Your task to perform on an android device: change the upload size in google photos Image 0: 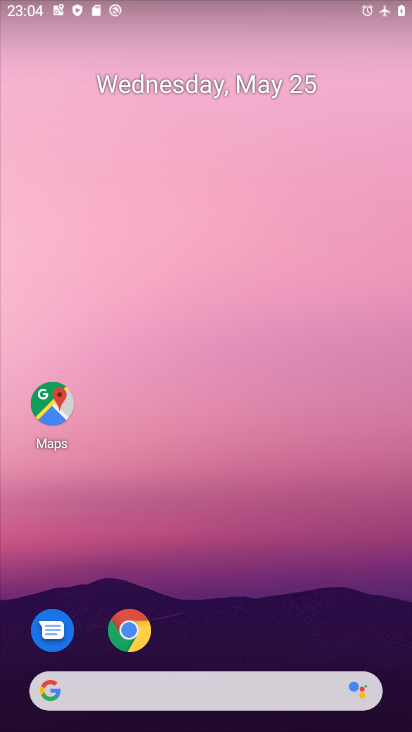
Step 0: drag from (235, 628) to (275, 74)
Your task to perform on an android device: change the upload size in google photos Image 1: 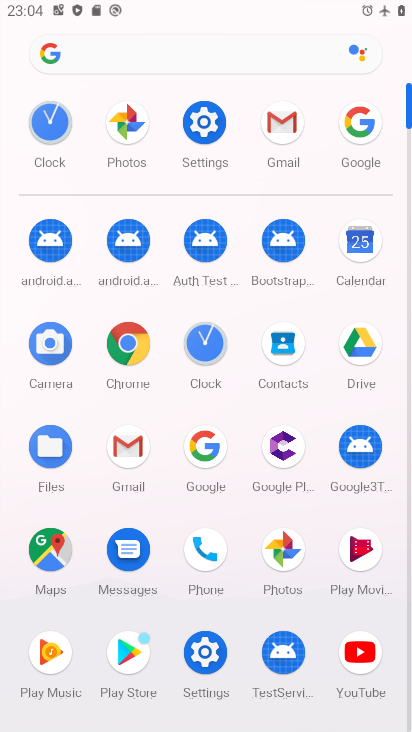
Step 1: click (124, 128)
Your task to perform on an android device: change the upload size in google photos Image 2: 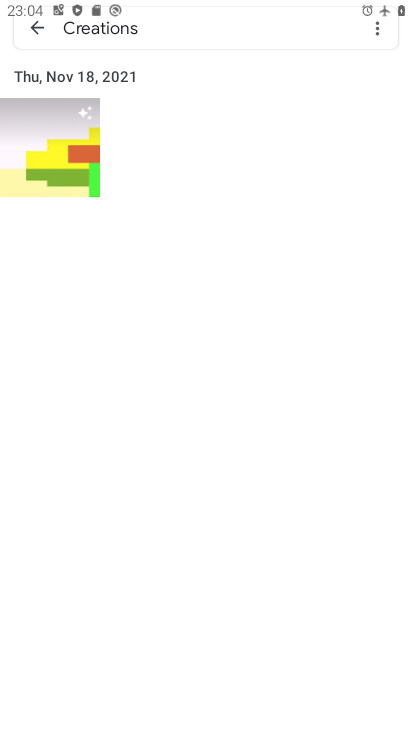
Step 2: click (37, 32)
Your task to perform on an android device: change the upload size in google photos Image 3: 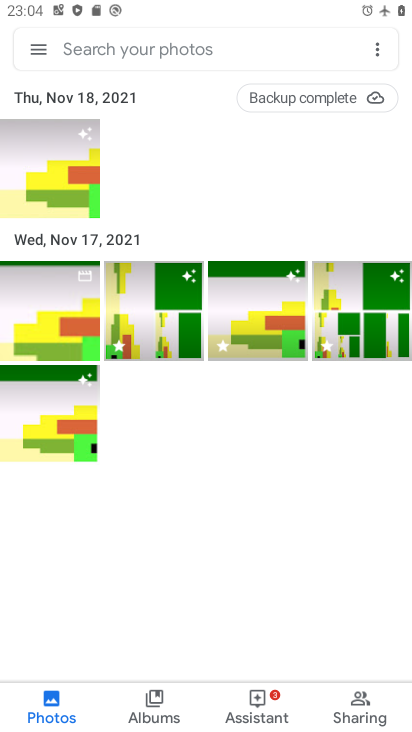
Step 3: click (42, 49)
Your task to perform on an android device: change the upload size in google photos Image 4: 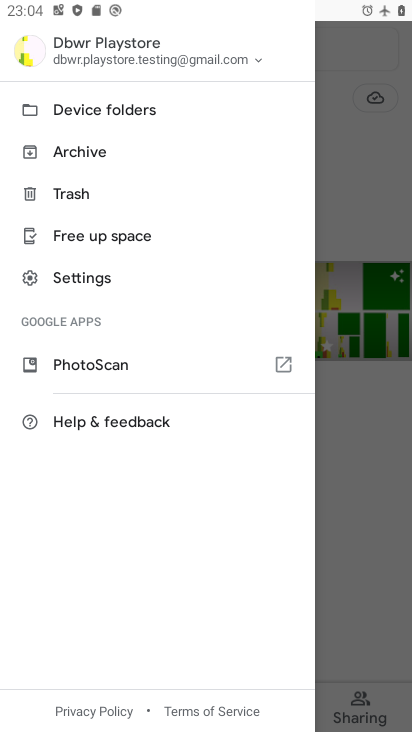
Step 4: click (118, 281)
Your task to perform on an android device: change the upload size in google photos Image 5: 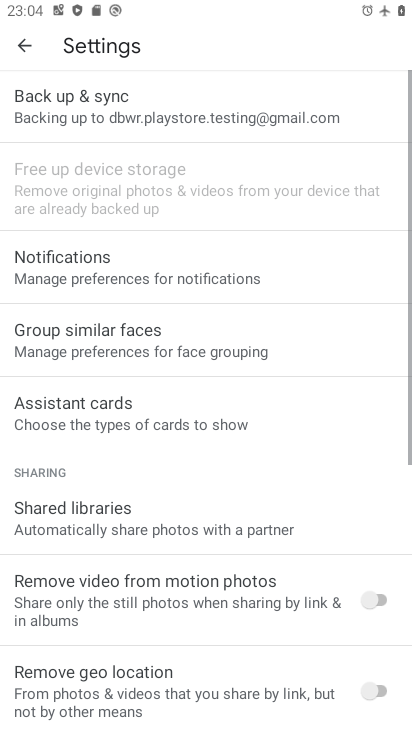
Step 5: click (104, 104)
Your task to perform on an android device: change the upload size in google photos Image 6: 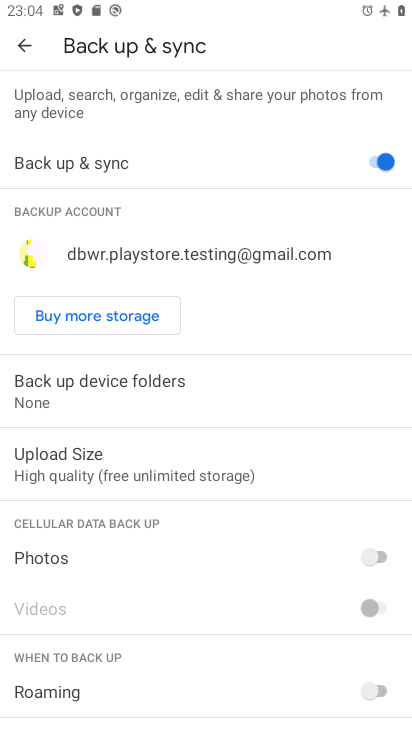
Step 6: click (124, 472)
Your task to perform on an android device: change the upload size in google photos Image 7: 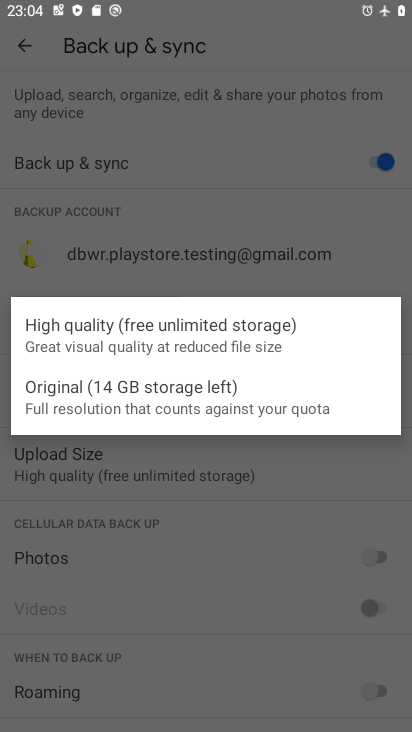
Step 7: click (125, 406)
Your task to perform on an android device: change the upload size in google photos Image 8: 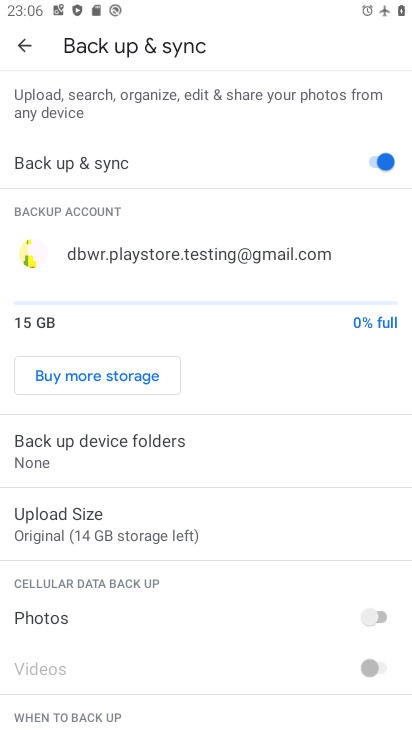
Step 8: task complete